Your task to perform on an android device: toggle translation in the chrome app Image 0: 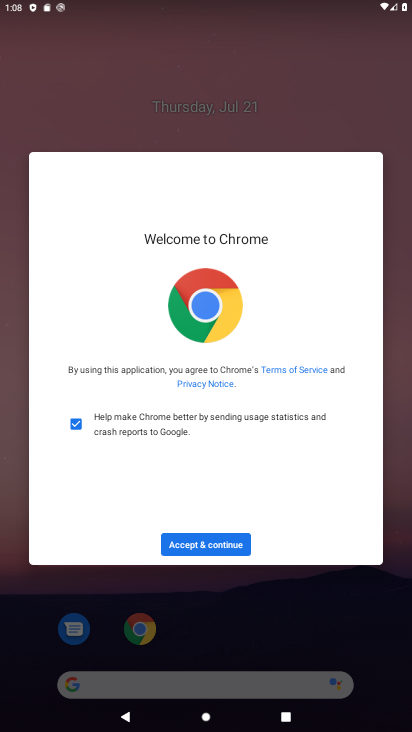
Step 0: click (186, 543)
Your task to perform on an android device: toggle translation in the chrome app Image 1: 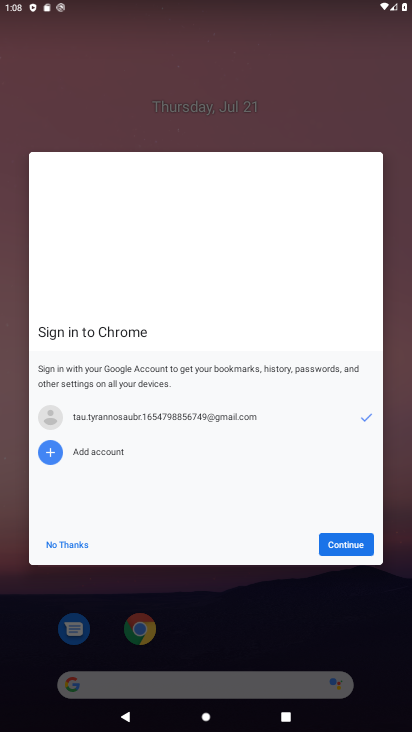
Step 1: click (350, 528)
Your task to perform on an android device: toggle translation in the chrome app Image 2: 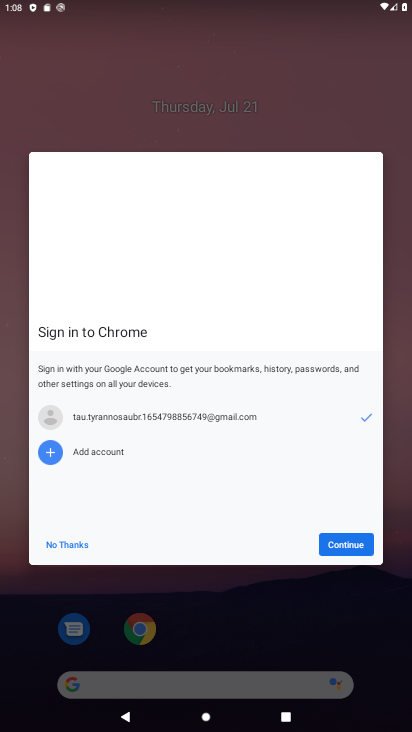
Step 2: click (350, 545)
Your task to perform on an android device: toggle translation in the chrome app Image 3: 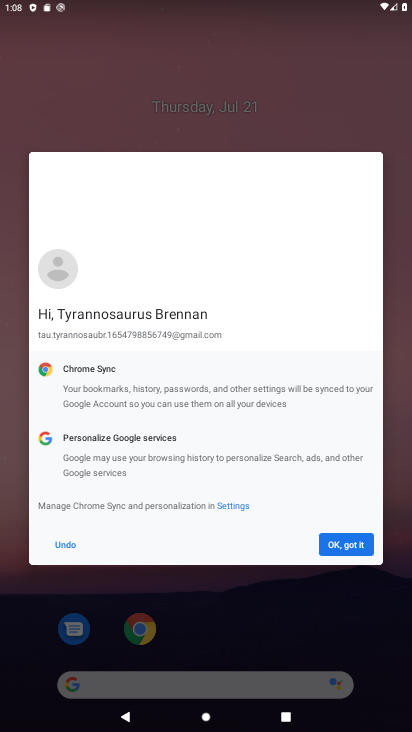
Step 3: click (337, 548)
Your task to perform on an android device: toggle translation in the chrome app Image 4: 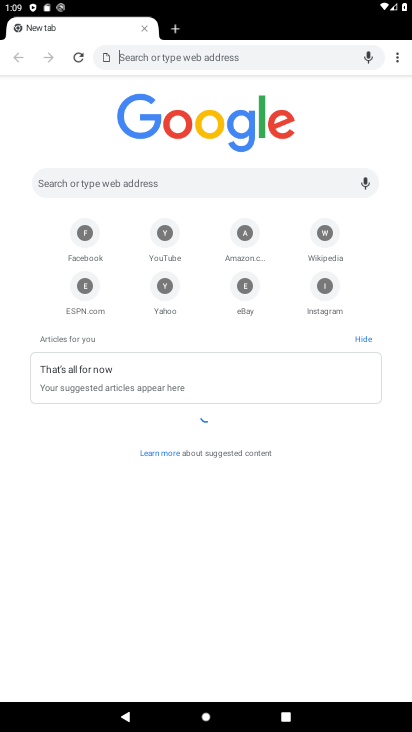
Step 4: click (394, 57)
Your task to perform on an android device: toggle translation in the chrome app Image 5: 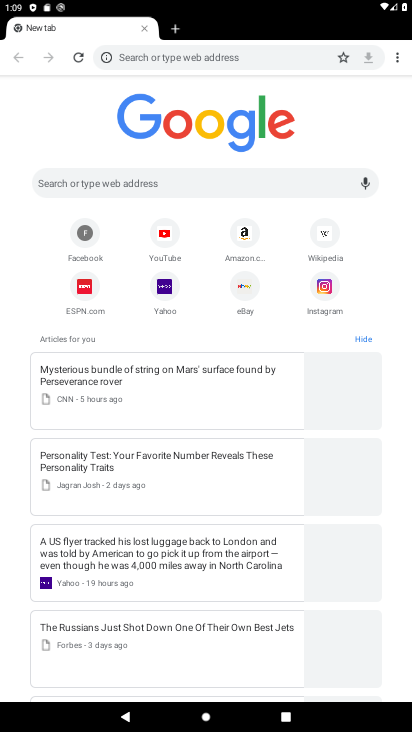
Step 5: click (394, 57)
Your task to perform on an android device: toggle translation in the chrome app Image 6: 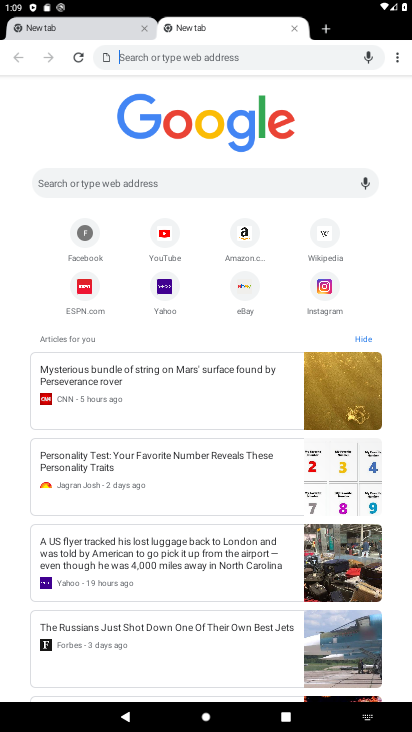
Step 6: click (400, 55)
Your task to perform on an android device: toggle translation in the chrome app Image 7: 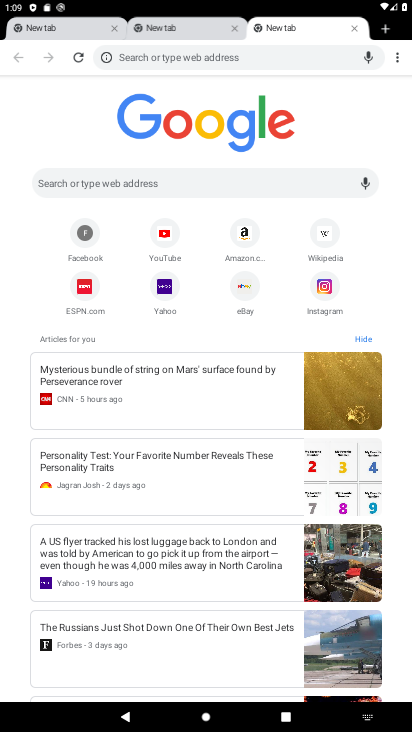
Step 7: task complete